Your task to perform on an android device: Open calendar and show me the second week of next month Image 0: 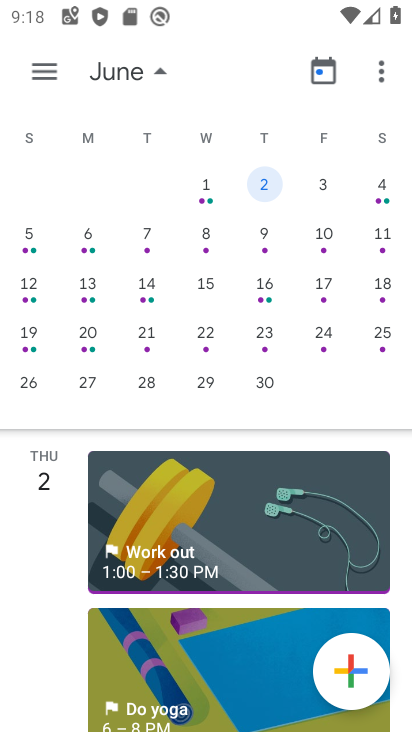
Step 0: click (80, 236)
Your task to perform on an android device: Open calendar and show me the second week of next month Image 1: 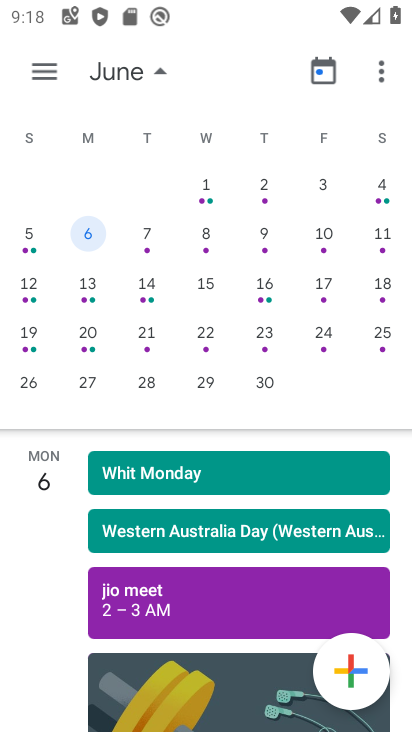
Step 1: task complete